Your task to perform on an android device: Search for vegetarian restaurants on Maps Image 0: 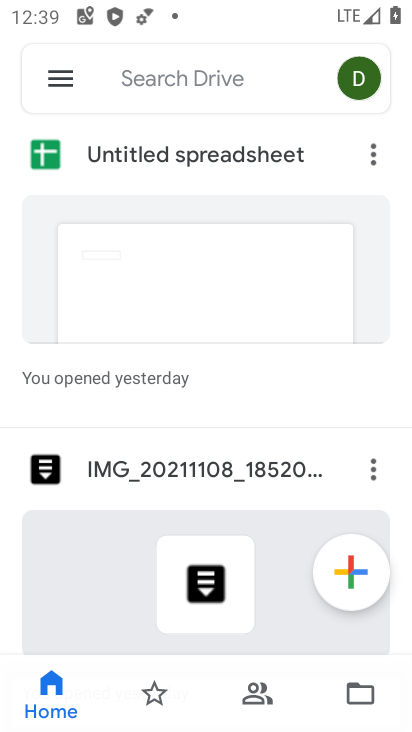
Step 0: press home button
Your task to perform on an android device: Search for vegetarian restaurants on Maps Image 1: 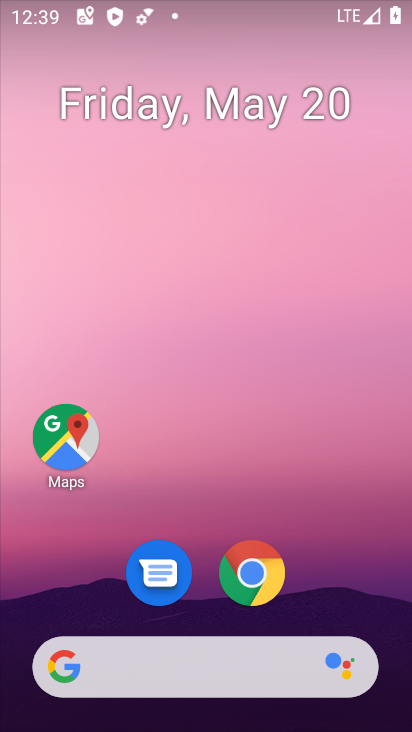
Step 1: click (73, 447)
Your task to perform on an android device: Search for vegetarian restaurants on Maps Image 2: 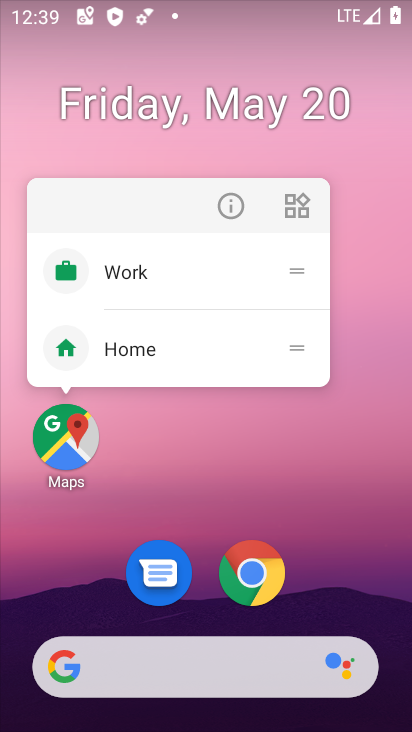
Step 2: click (50, 464)
Your task to perform on an android device: Search for vegetarian restaurants on Maps Image 3: 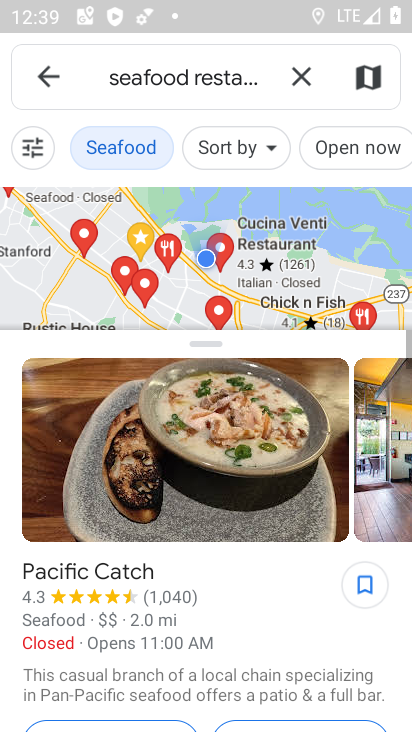
Step 3: click (158, 77)
Your task to perform on an android device: Search for vegetarian restaurants on Maps Image 4: 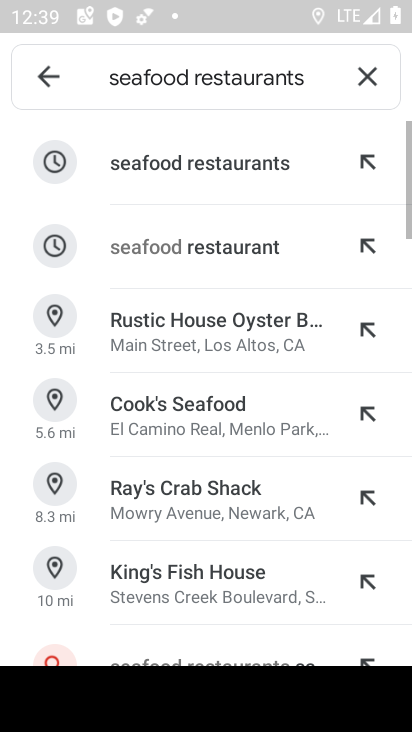
Step 4: click (157, 78)
Your task to perform on an android device: Search for vegetarian restaurants on Maps Image 5: 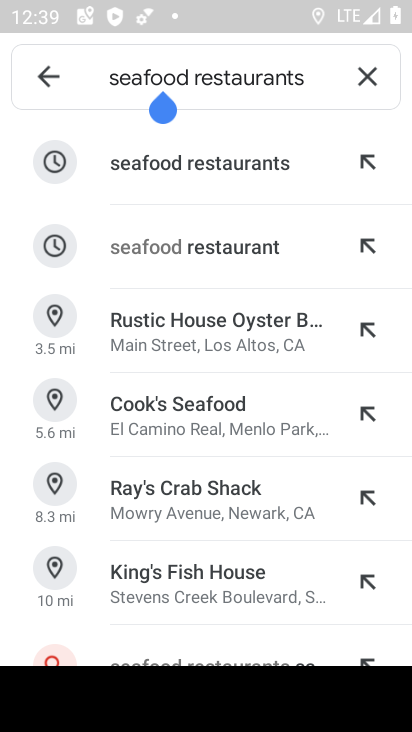
Step 5: click (157, 78)
Your task to perform on an android device: Search for vegetarian restaurants on Maps Image 6: 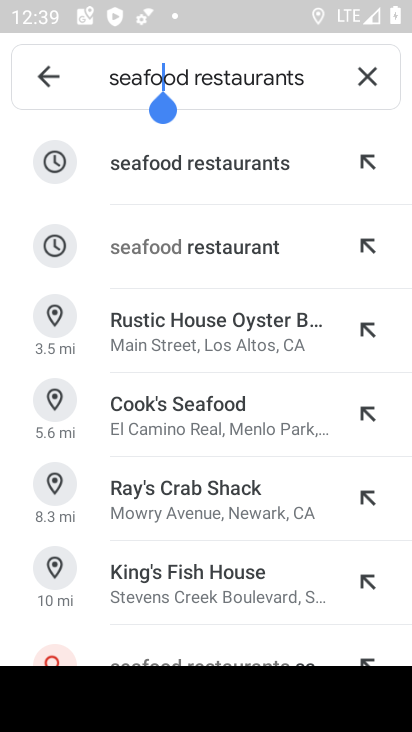
Step 6: click (137, 79)
Your task to perform on an android device: Search for vegetarian restaurants on Maps Image 7: 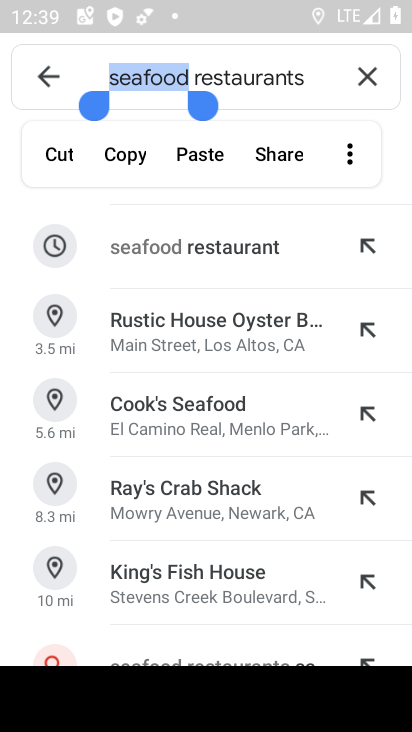
Step 7: type "vegetarian"
Your task to perform on an android device: Search for vegetarian restaurants on Maps Image 8: 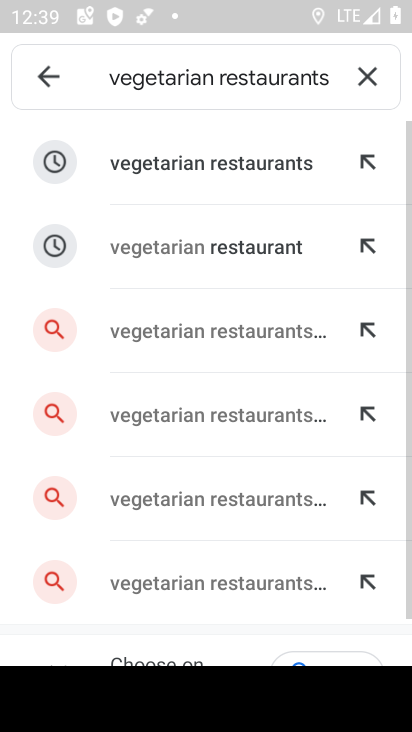
Step 8: click (230, 156)
Your task to perform on an android device: Search for vegetarian restaurants on Maps Image 9: 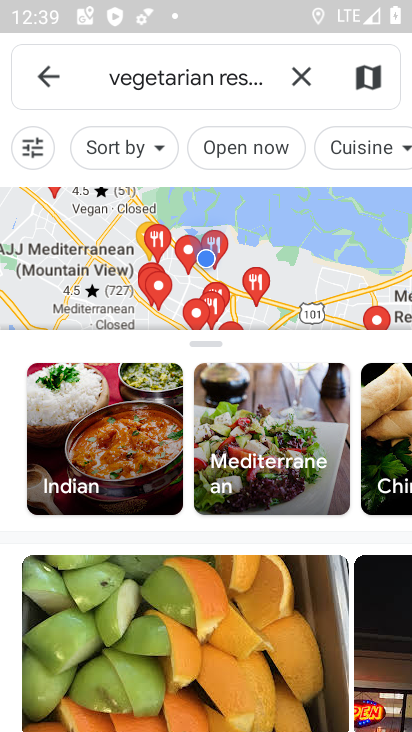
Step 9: task complete